Your task to perform on an android device: check battery use Image 0: 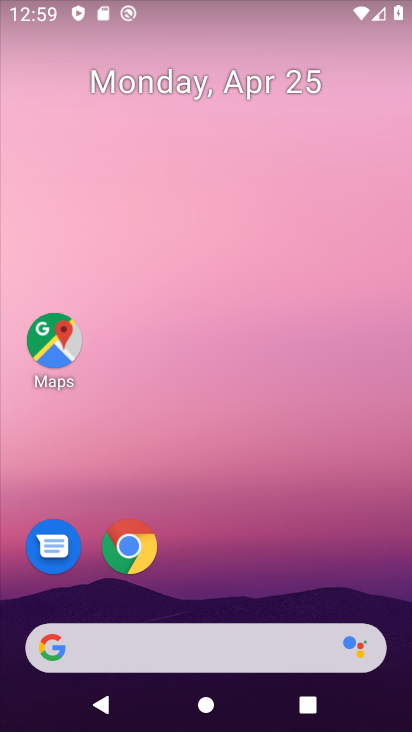
Step 0: drag from (185, 27) to (312, 63)
Your task to perform on an android device: check battery use Image 1: 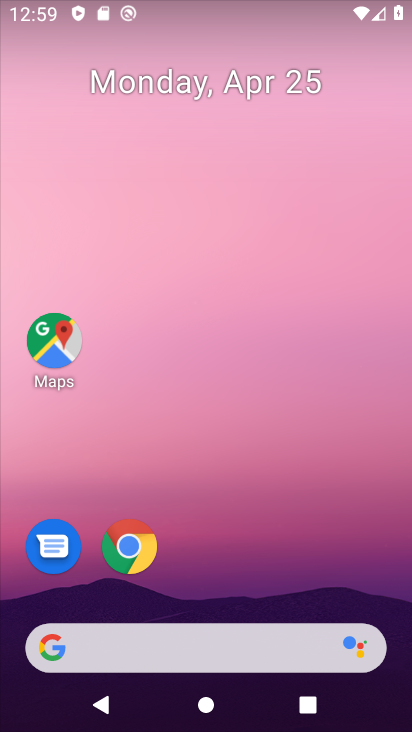
Step 1: drag from (239, 603) to (240, 50)
Your task to perform on an android device: check battery use Image 2: 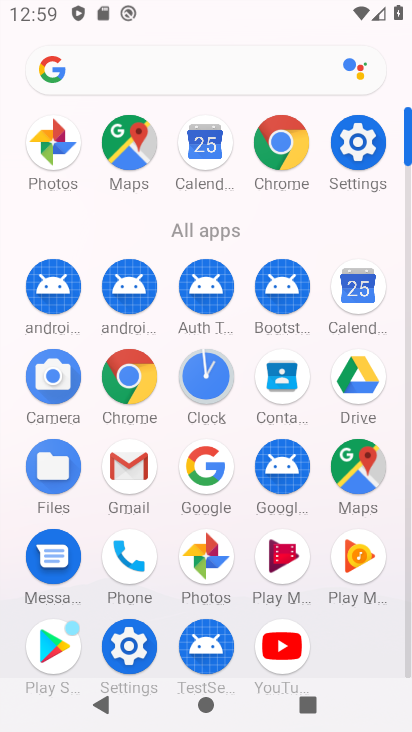
Step 2: click (347, 148)
Your task to perform on an android device: check battery use Image 3: 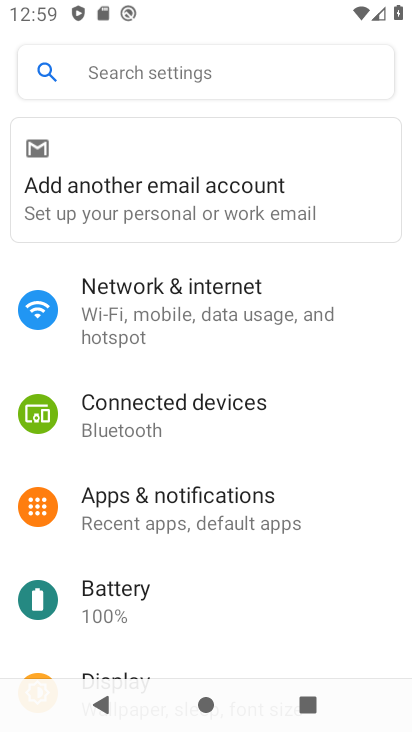
Step 3: drag from (106, 490) to (117, 151)
Your task to perform on an android device: check battery use Image 4: 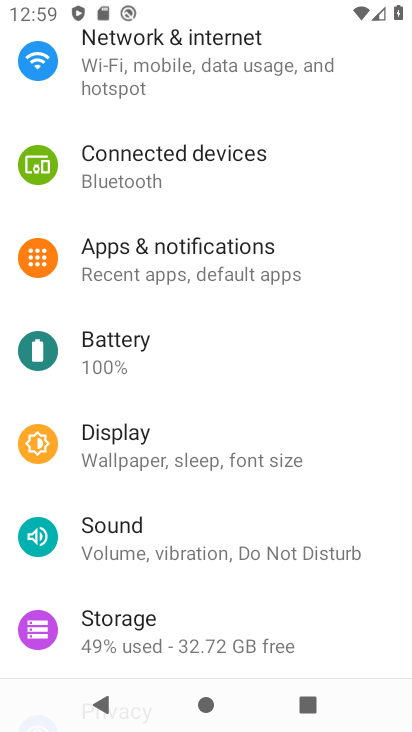
Step 4: click (150, 366)
Your task to perform on an android device: check battery use Image 5: 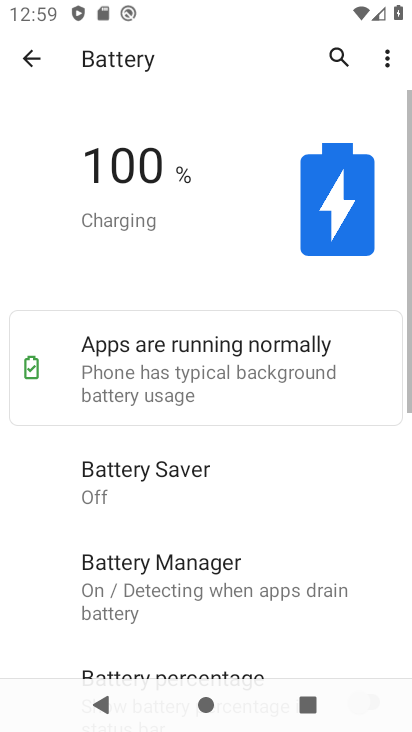
Step 5: task complete